Your task to perform on an android device: Search for a new lawnmower on home depot Image 0: 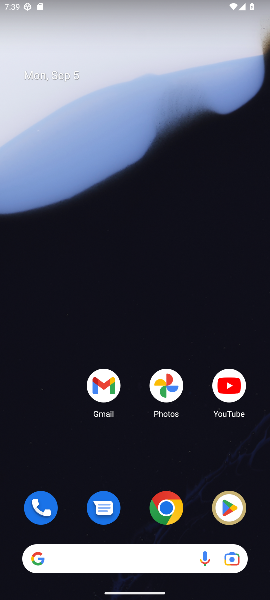
Step 0: click (162, 510)
Your task to perform on an android device: Search for a new lawnmower on home depot Image 1: 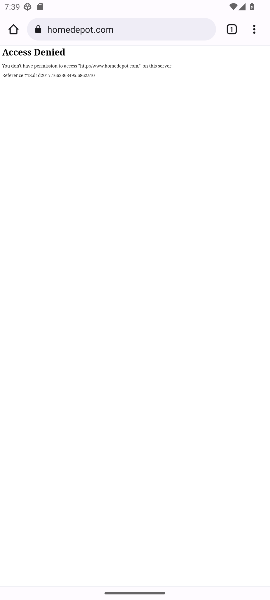
Step 1: press home button
Your task to perform on an android device: Search for a new lawnmower on home depot Image 2: 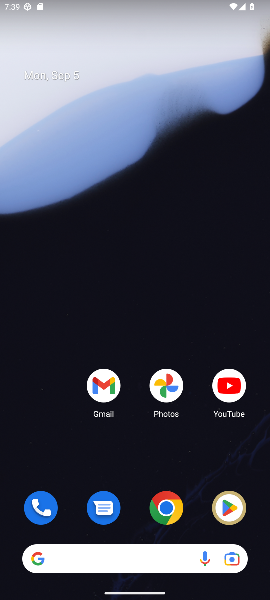
Step 2: click (168, 511)
Your task to perform on an android device: Search for a new lawnmower on home depot Image 3: 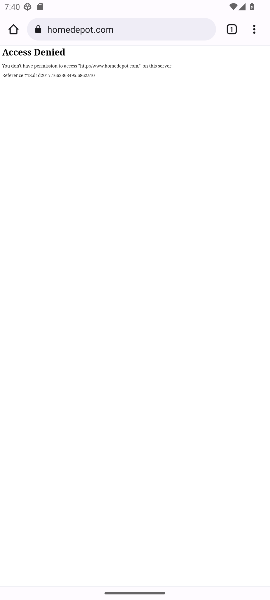
Step 3: click (74, 34)
Your task to perform on an android device: Search for a new lawnmower on home depot Image 4: 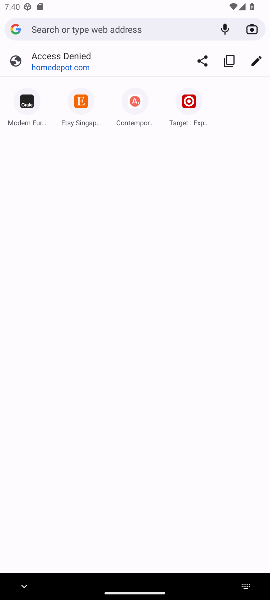
Step 4: type "best rated power washer"
Your task to perform on an android device: Search for a new lawnmower on home depot Image 5: 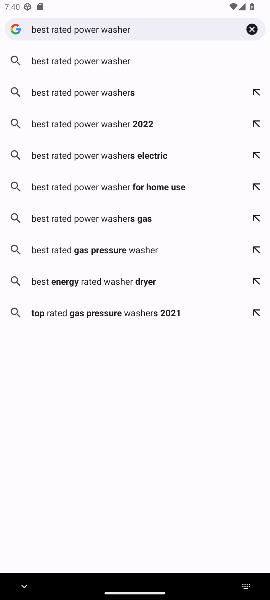
Step 5: click (256, 28)
Your task to perform on an android device: Search for a new lawnmower on home depot Image 6: 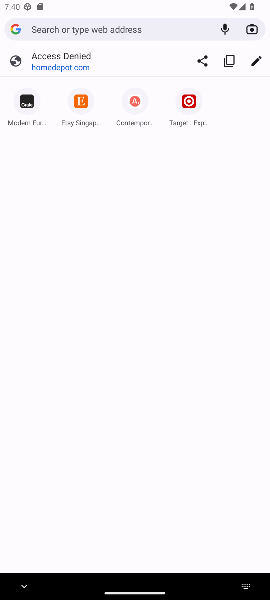
Step 6: click (102, 32)
Your task to perform on an android device: Search for a new lawnmower on home depot Image 7: 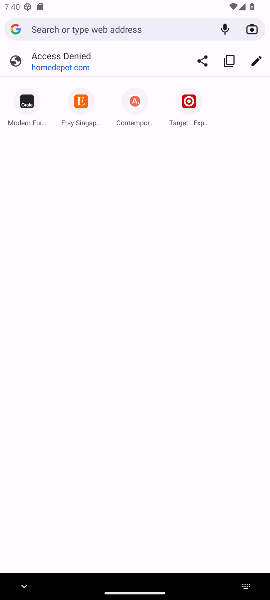
Step 7: type "home depot"
Your task to perform on an android device: Search for a new lawnmower on home depot Image 8: 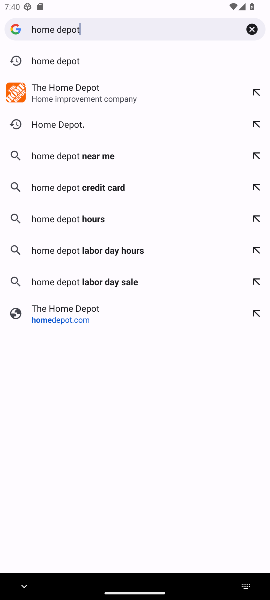
Step 8: click (59, 65)
Your task to perform on an android device: Search for a new lawnmower on home depot Image 9: 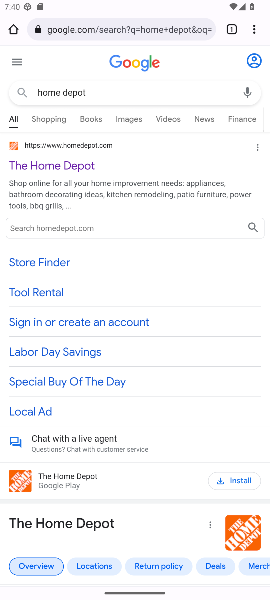
Step 9: click (36, 178)
Your task to perform on an android device: Search for a new lawnmower on home depot Image 10: 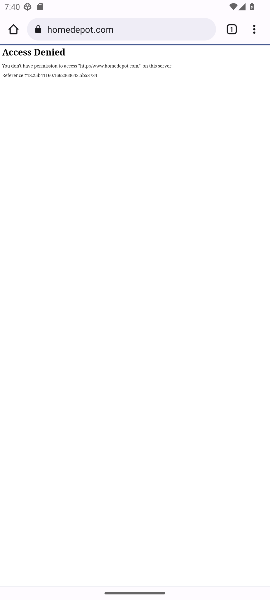
Step 10: task complete